Your task to perform on an android device: Open internet settings Image 0: 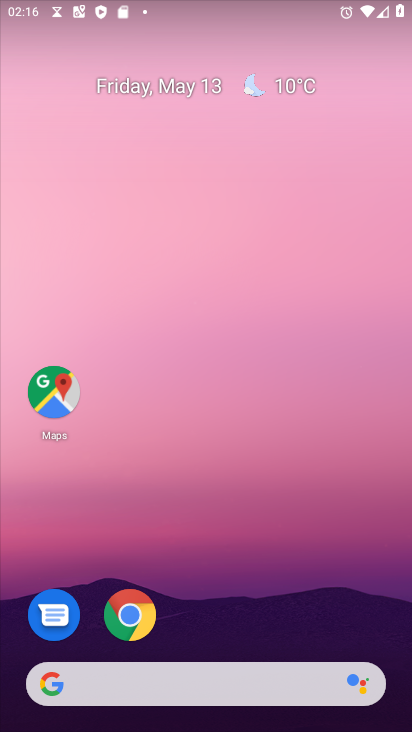
Step 0: drag from (201, 533) to (142, 98)
Your task to perform on an android device: Open internet settings Image 1: 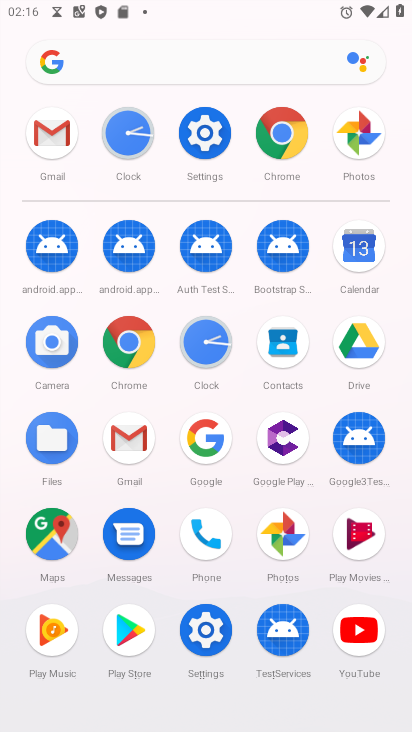
Step 1: click (189, 138)
Your task to perform on an android device: Open internet settings Image 2: 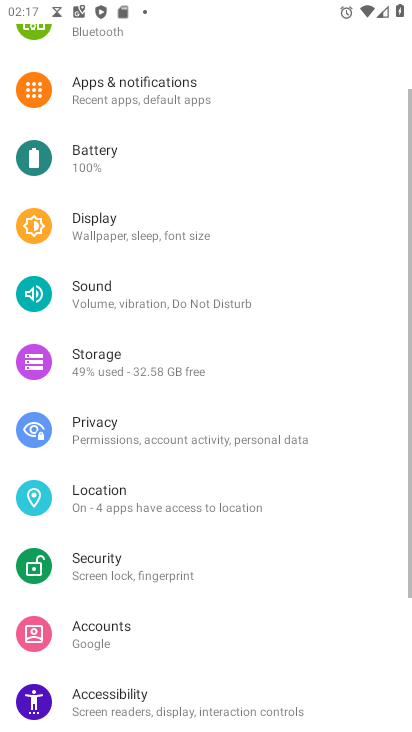
Step 2: drag from (137, 136) to (124, 583)
Your task to perform on an android device: Open internet settings Image 3: 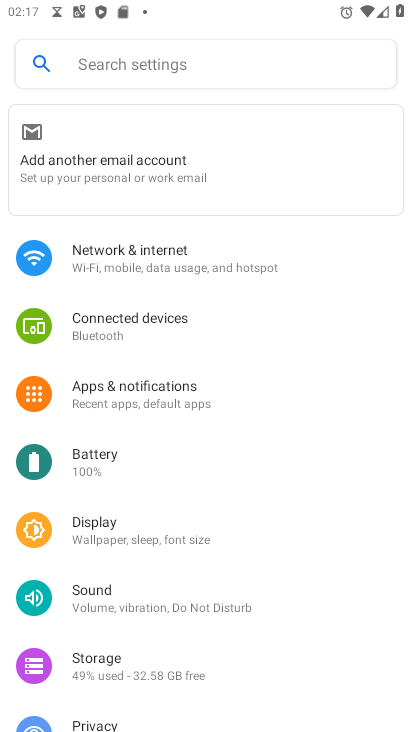
Step 3: click (141, 254)
Your task to perform on an android device: Open internet settings Image 4: 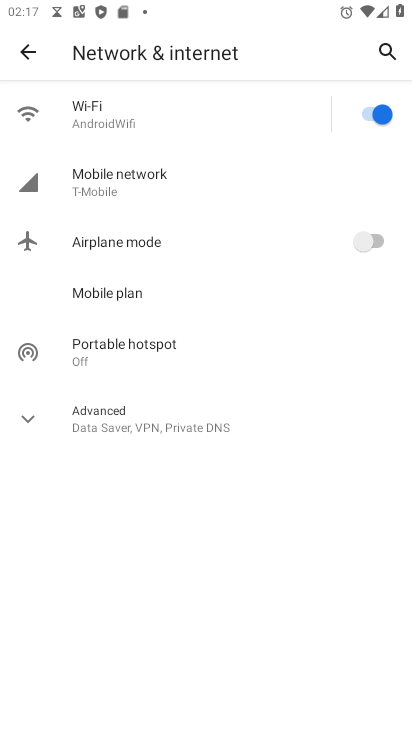
Step 4: click (148, 424)
Your task to perform on an android device: Open internet settings Image 5: 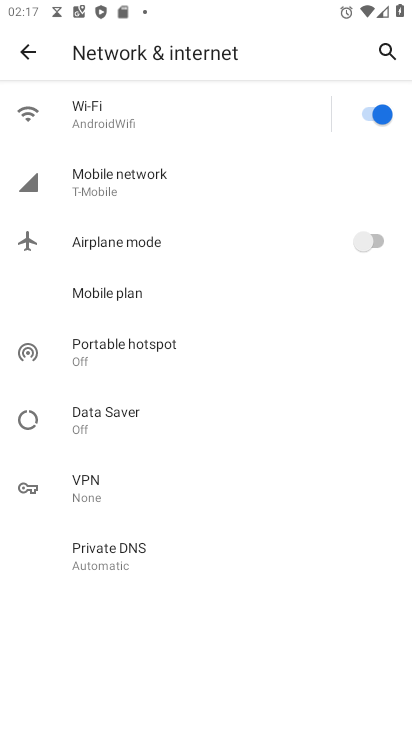
Step 5: task complete